Your task to perform on an android device: Open eBay Image 0: 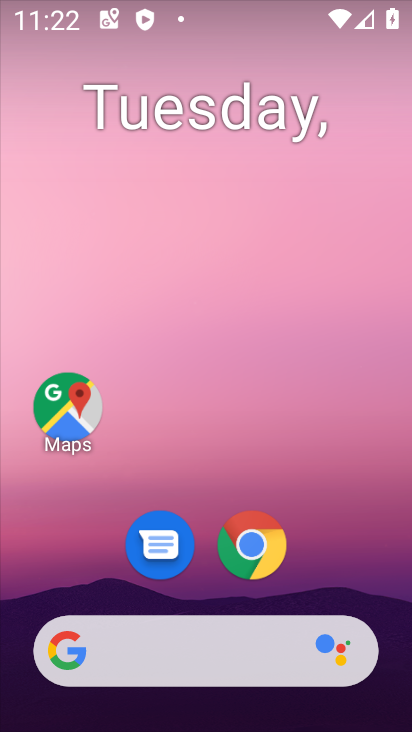
Step 0: click (232, 653)
Your task to perform on an android device: Open eBay Image 1: 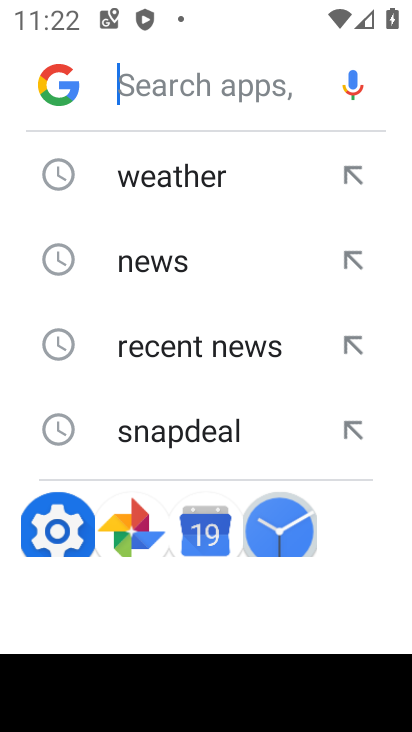
Step 1: type "eBay"
Your task to perform on an android device: Open eBay Image 2: 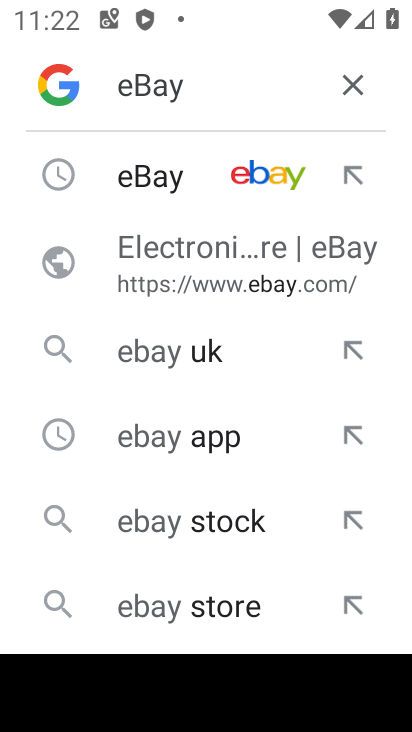
Step 2: click (283, 169)
Your task to perform on an android device: Open eBay Image 3: 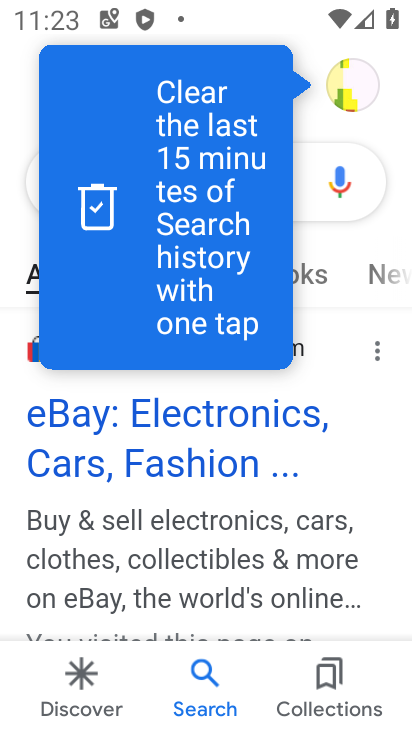
Step 3: click (157, 406)
Your task to perform on an android device: Open eBay Image 4: 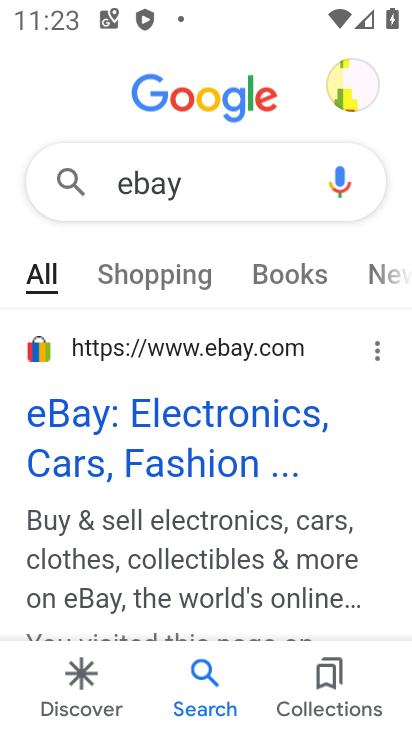
Step 4: click (157, 406)
Your task to perform on an android device: Open eBay Image 5: 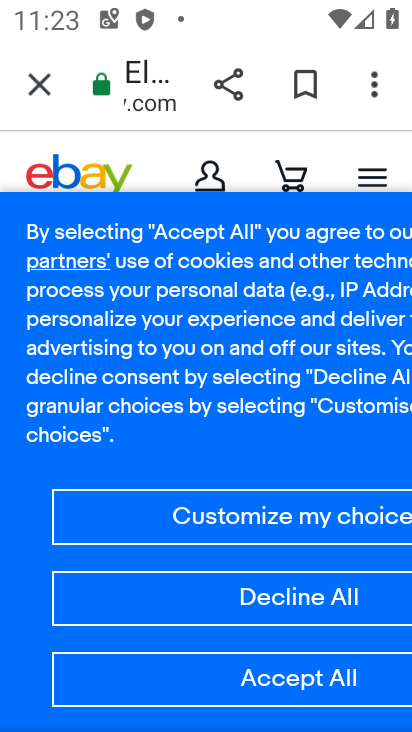
Step 5: task complete